Your task to perform on an android device: delete the emails in spam in the gmail app Image 0: 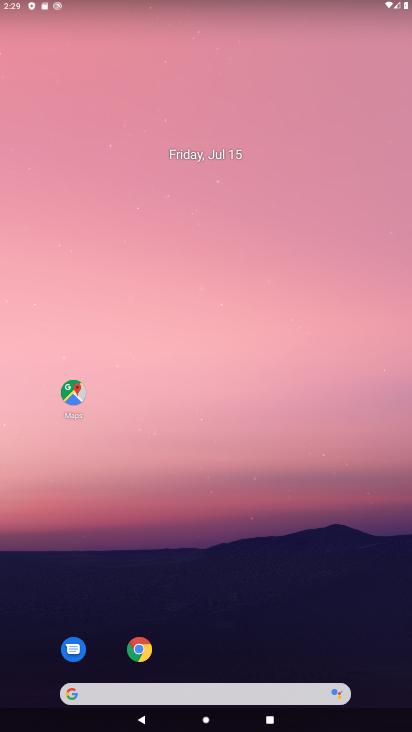
Step 0: drag from (220, 467) to (218, 143)
Your task to perform on an android device: delete the emails in spam in the gmail app Image 1: 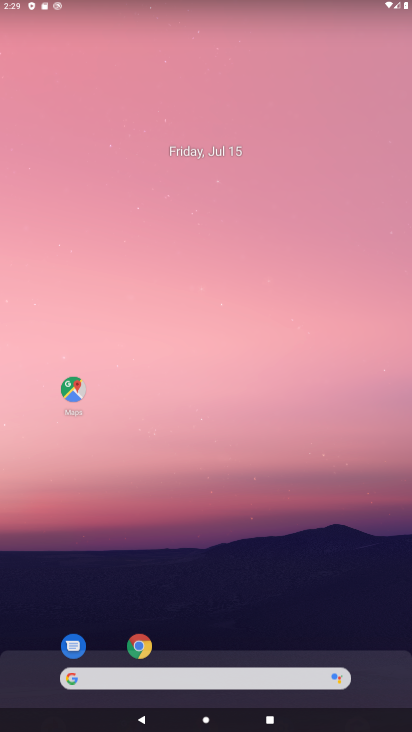
Step 1: drag from (246, 471) to (216, 187)
Your task to perform on an android device: delete the emails in spam in the gmail app Image 2: 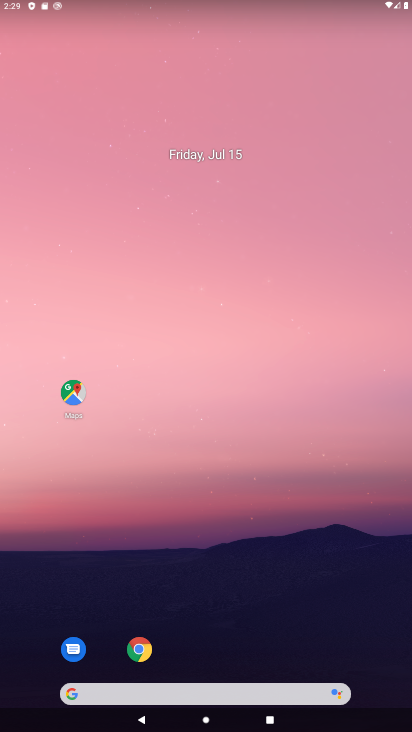
Step 2: drag from (249, 470) to (261, 374)
Your task to perform on an android device: delete the emails in spam in the gmail app Image 3: 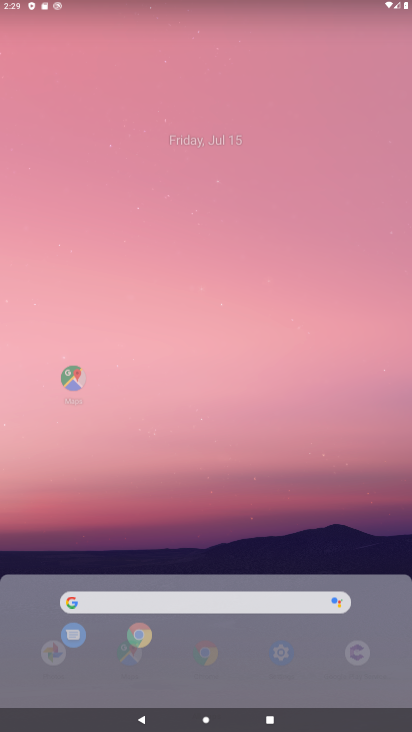
Step 3: drag from (320, 212) to (321, 130)
Your task to perform on an android device: delete the emails in spam in the gmail app Image 4: 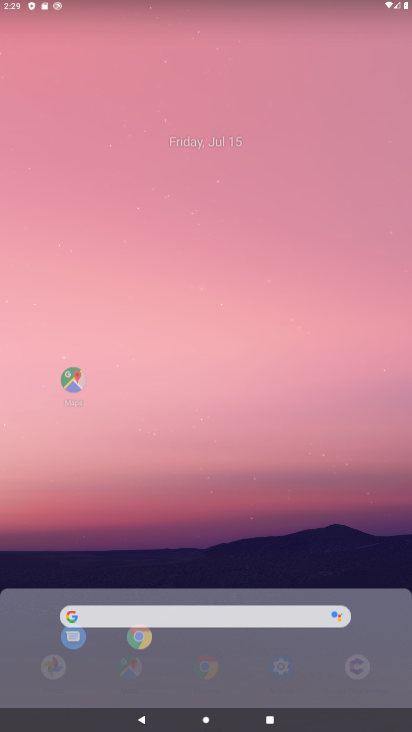
Step 4: drag from (296, 516) to (236, 108)
Your task to perform on an android device: delete the emails in spam in the gmail app Image 5: 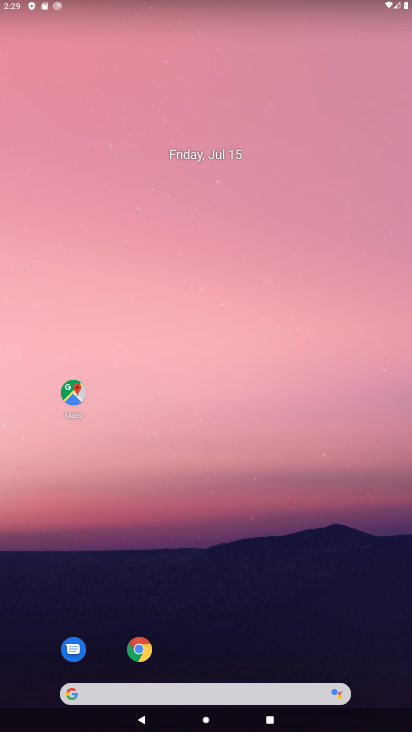
Step 5: drag from (179, 474) to (143, 62)
Your task to perform on an android device: delete the emails in spam in the gmail app Image 6: 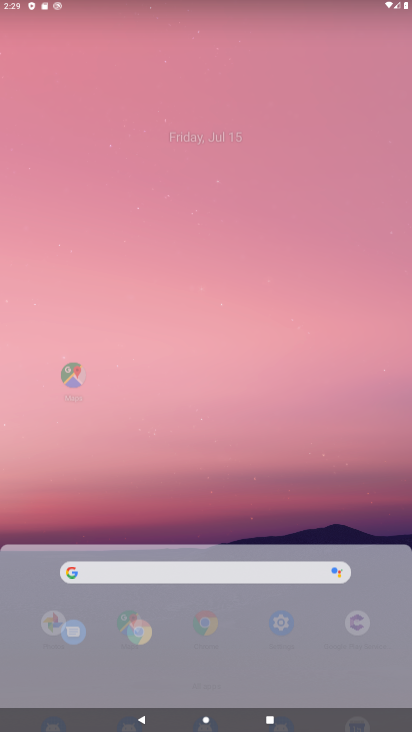
Step 6: drag from (177, 459) to (177, 118)
Your task to perform on an android device: delete the emails in spam in the gmail app Image 7: 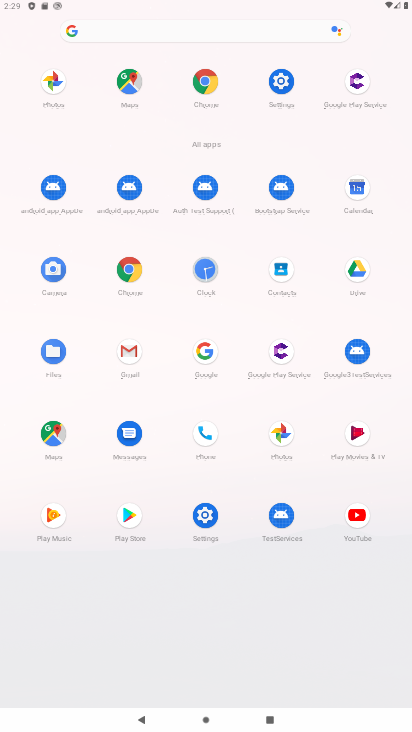
Step 7: drag from (204, 614) to (205, 3)
Your task to perform on an android device: delete the emails in spam in the gmail app Image 8: 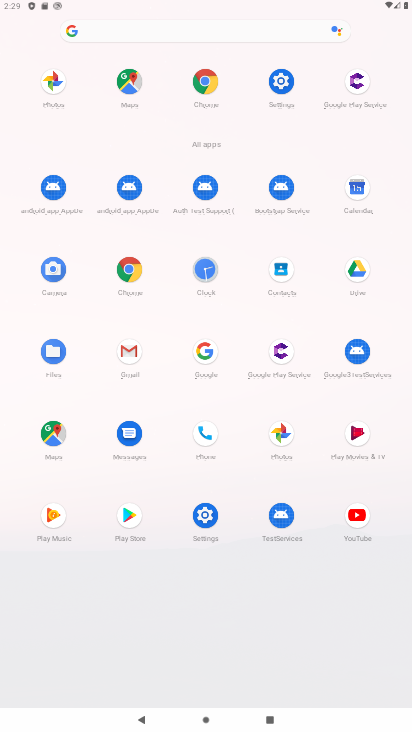
Step 8: click (132, 343)
Your task to perform on an android device: delete the emails in spam in the gmail app Image 9: 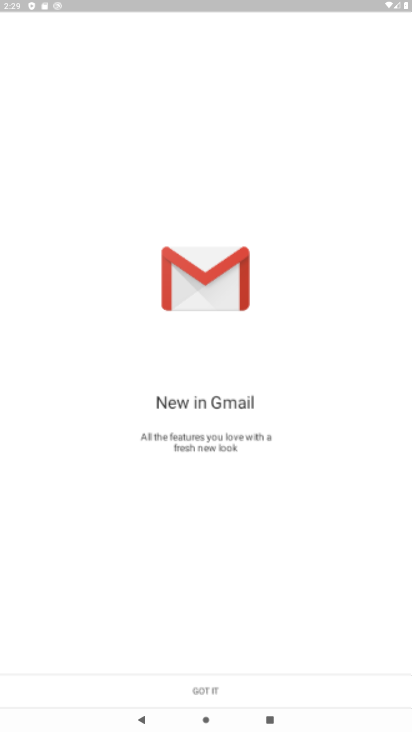
Step 9: click (125, 334)
Your task to perform on an android device: delete the emails in spam in the gmail app Image 10: 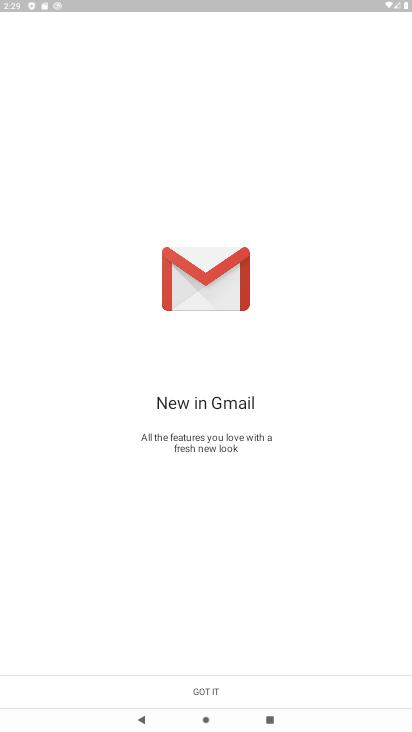
Step 10: click (218, 685)
Your task to perform on an android device: delete the emails in spam in the gmail app Image 11: 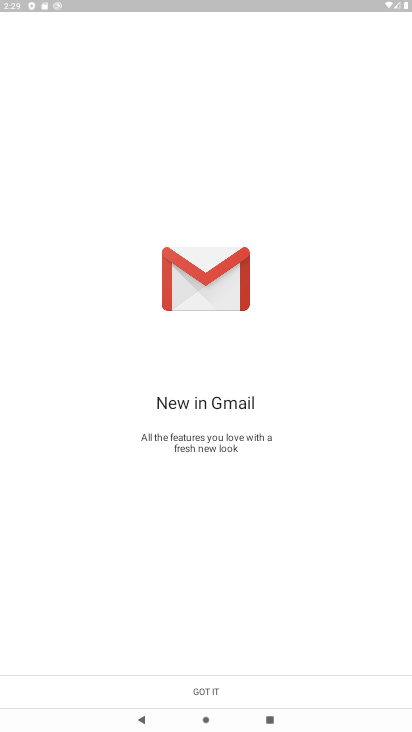
Step 11: click (220, 683)
Your task to perform on an android device: delete the emails in spam in the gmail app Image 12: 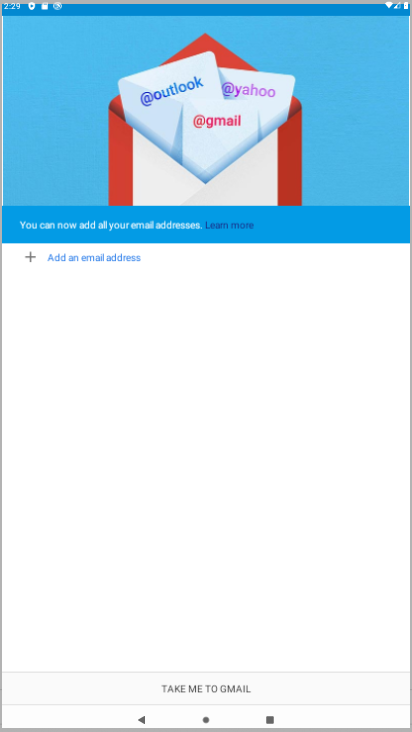
Step 12: click (221, 682)
Your task to perform on an android device: delete the emails in spam in the gmail app Image 13: 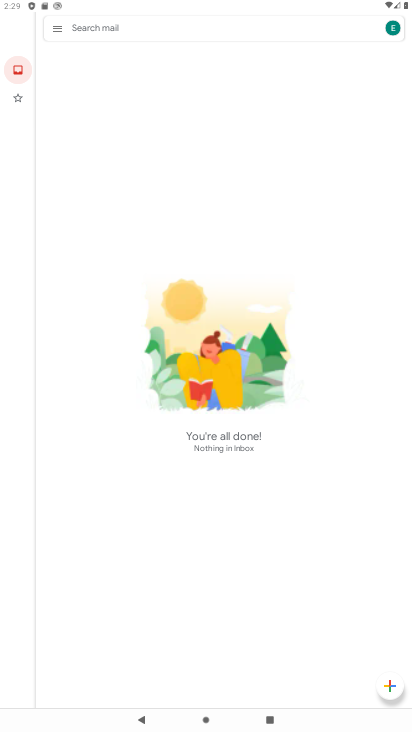
Step 13: click (50, 25)
Your task to perform on an android device: delete the emails in spam in the gmail app Image 14: 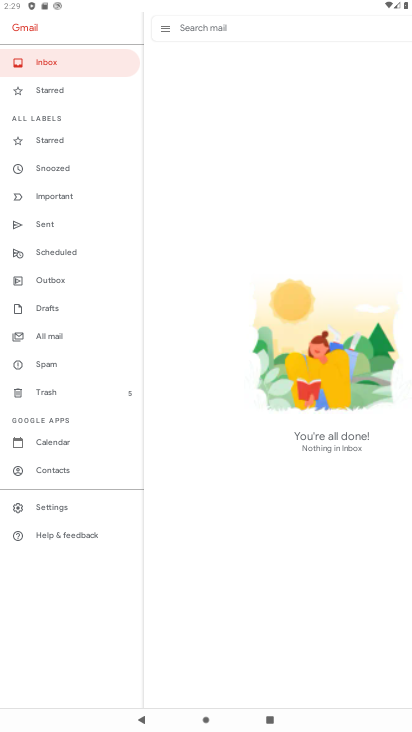
Step 14: click (48, 366)
Your task to perform on an android device: delete the emails in spam in the gmail app Image 15: 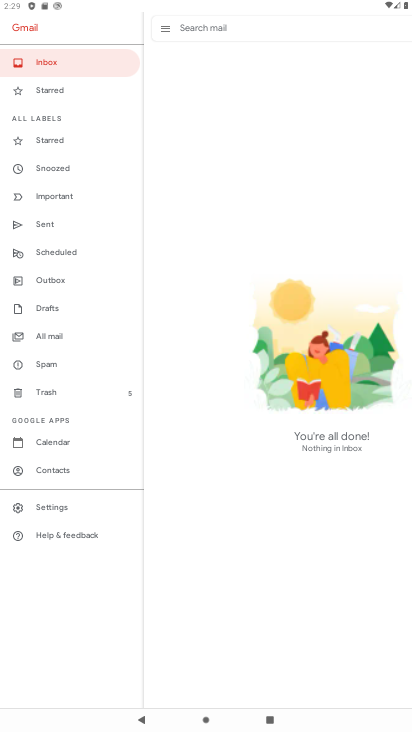
Step 15: click (42, 357)
Your task to perform on an android device: delete the emails in spam in the gmail app Image 16: 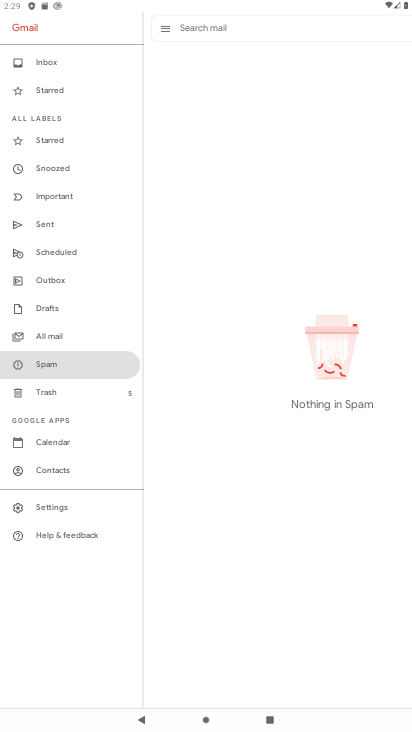
Step 16: task complete